Your task to perform on an android device: Is it going to rain this weekend? Image 0: 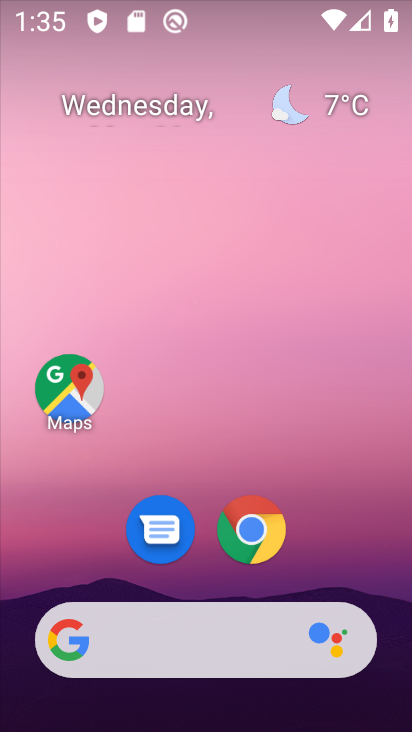
Step 0: click (227, 649)
Your task to perform on an android device: Is it going to rain this weekend? Image 1: 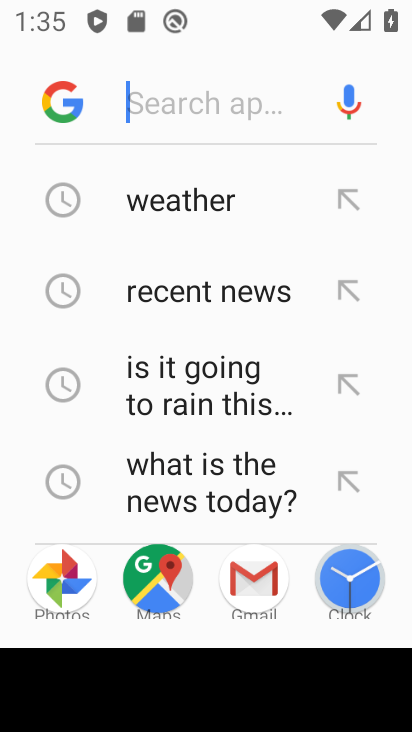
Step 1: click (181, 189)
Your task to perform on an android device: Is it going to rain this weekend? Image 2: 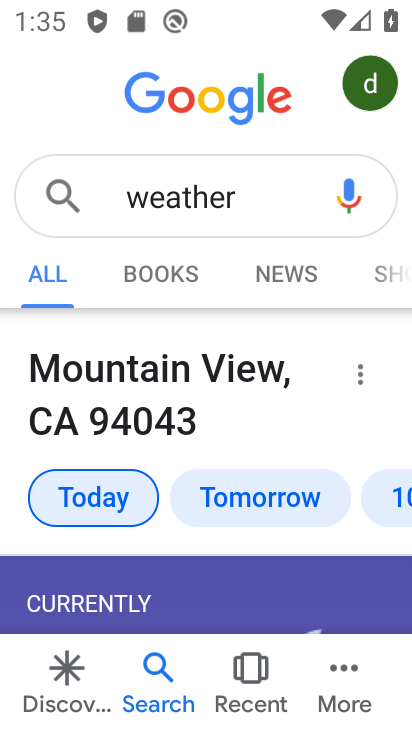
Step 2: click (252, 508)
Your task to perform on an android device: Is it going to rain this weekend? Image 3: 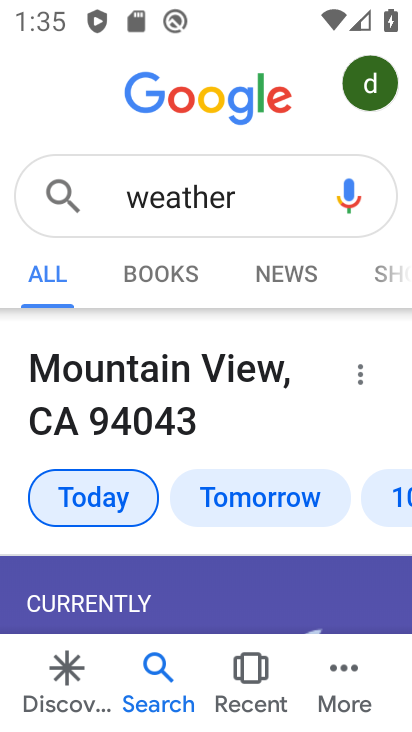
Step 3: click (395, 512)
Your task to perform on an android device: Is it going to rain this weekend? Image 4: 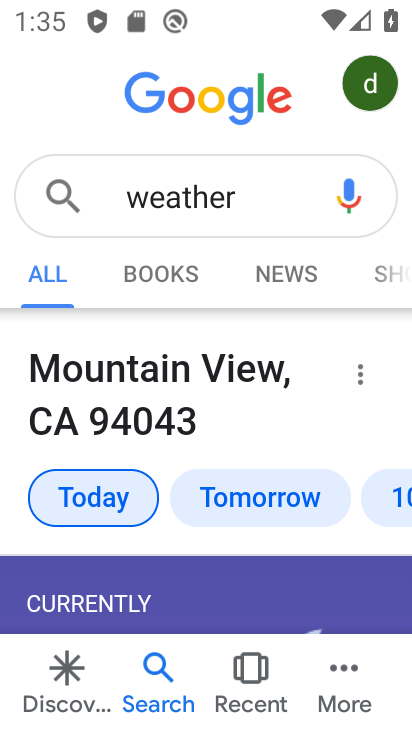
Step 4: drag from (197, 561) to (258, 288)
Your task to perform on an android device: Is it going to rain this weekend? Image 5: 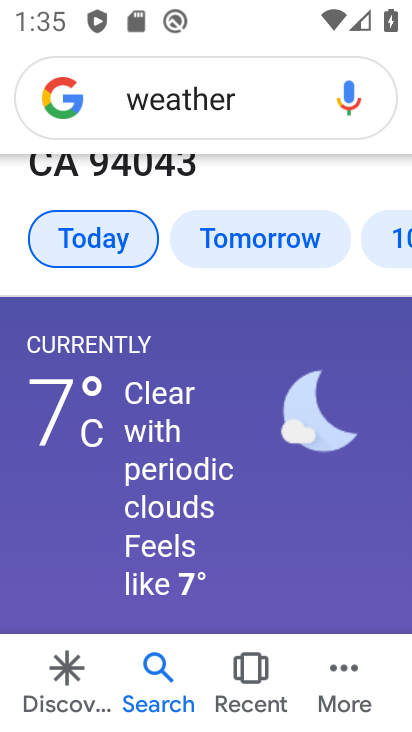
Step 5: click (388, 238)
Your task to perform on an android device: Is it going to rain this weekend? Image 6: 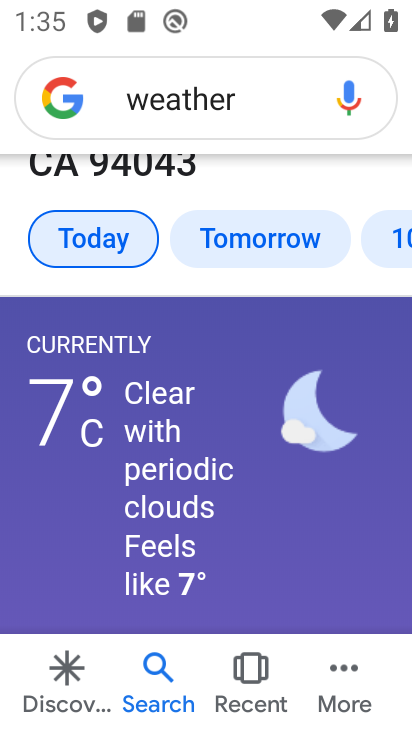
Step 6: click (388, 238)
Your task to perform on an android device: Is it going to rain this weekend? Image 7: 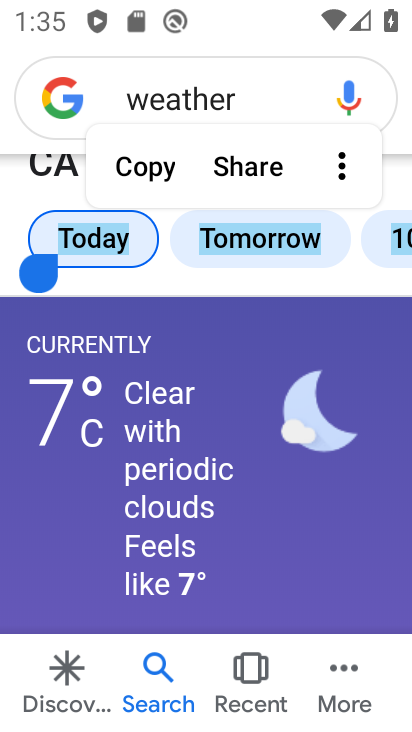
Step 7: click (355, 474)
Your task to perform on an android device: Is it going to rain this weekend? Image 8: 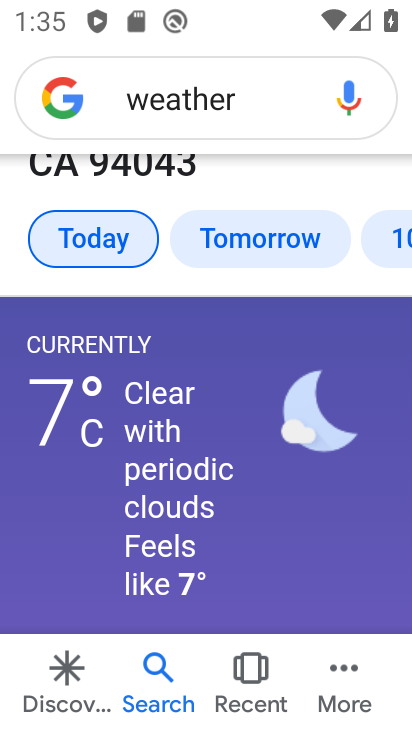
Step 8: task complete